Your task to perform on an android device: clear history in the chrome app Image 0: 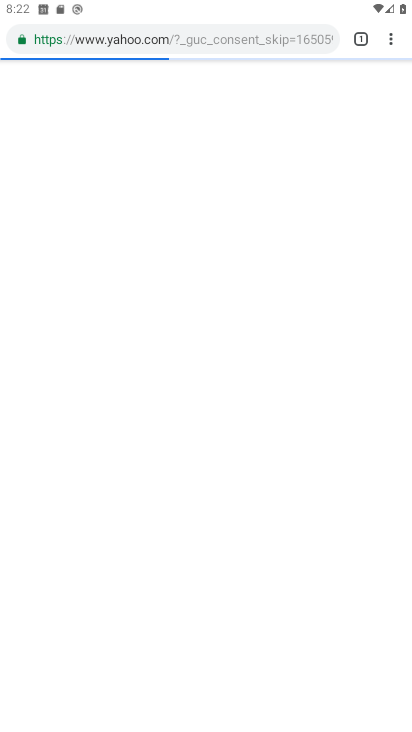
Step 0: press home button
Your task to perform on an android device: clear history in the chrome app Image 1: 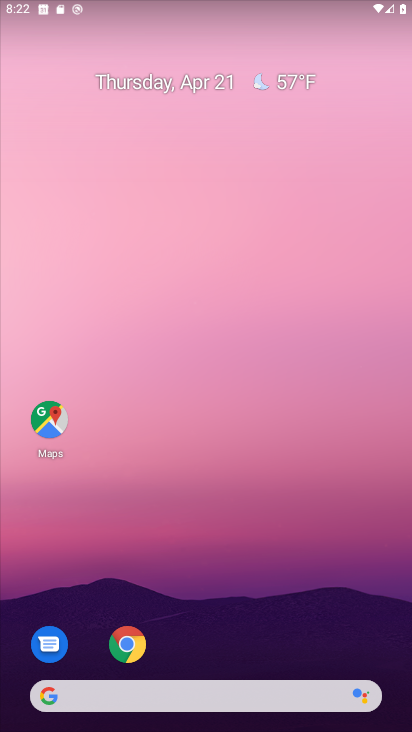
Step 1: click (138, 641)
Your task to perform on an android device: clear history in the chrome app Image 2: 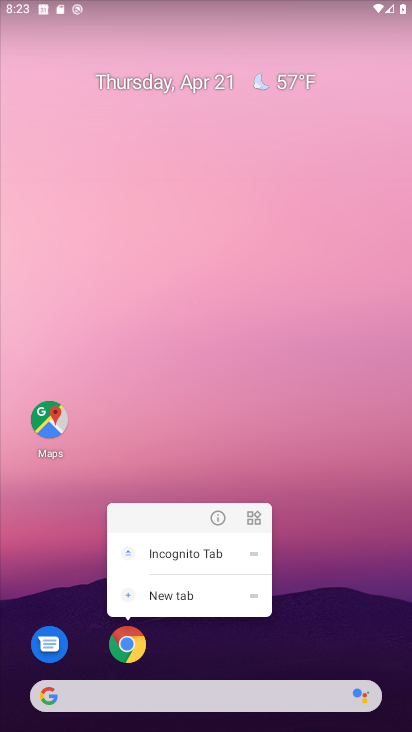
Step 2: click (135, 643)
Your task to perform on an android device: clear history in the chrome app Image 3: 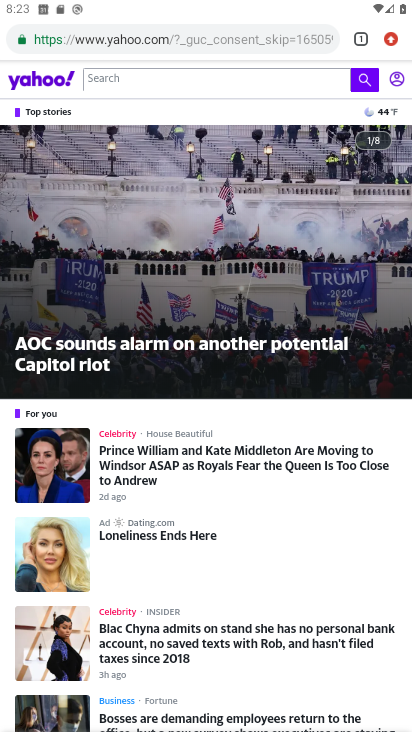
Step 3: click (388, 37)
Your task to perform on an android device: clear history in the chrome app Image 4: 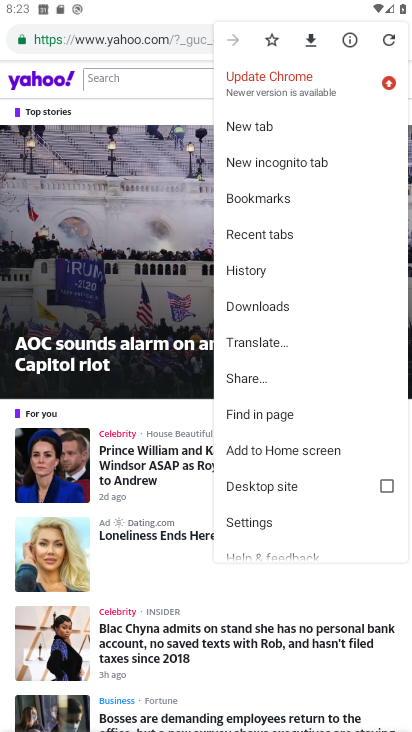
Step 4: click (251, 265)
Your task to perform on an android device: clear history in the chrome app Image 5: 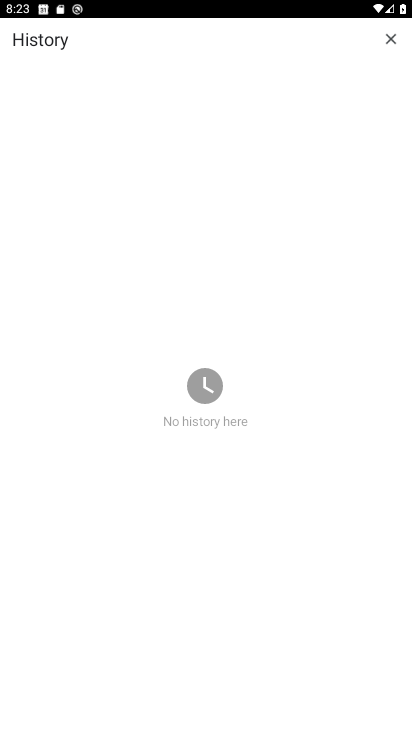
Step 5: task complete